Your task to perform on an android device: Open my contact list Image 0: 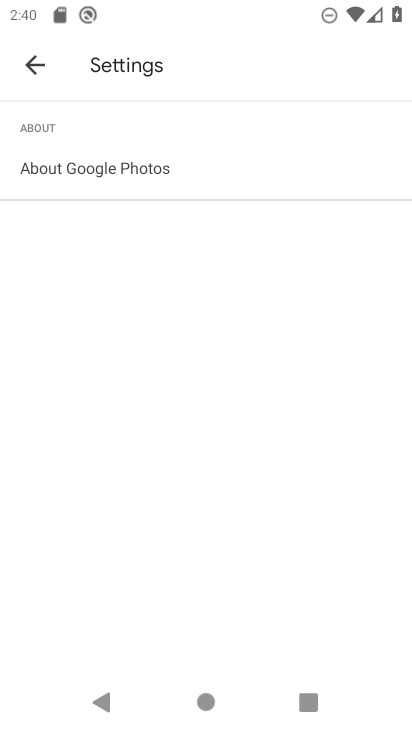
Step 0: click (23, 61)
Your task to perform on an android device: Open my contact list Image 1: 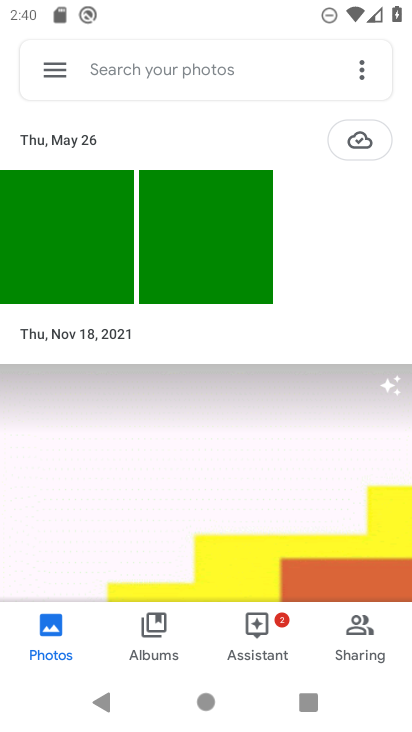
Step 1: press back button
Your task to perform on an android device: Open my contact list Image 2: 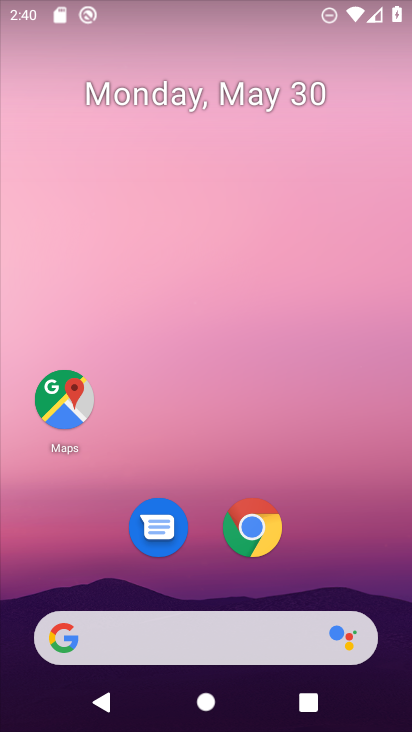
Step 2: drag from (269, 693) to (287, 173)
Your task to perform on an android device: Open my contact list Image 3: 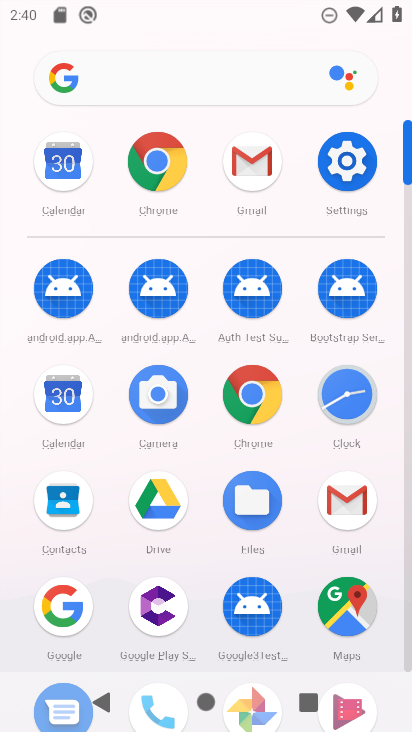
Step 3: click (69, 505)
Your task to perform on an android device: Open my contact list Image 4: 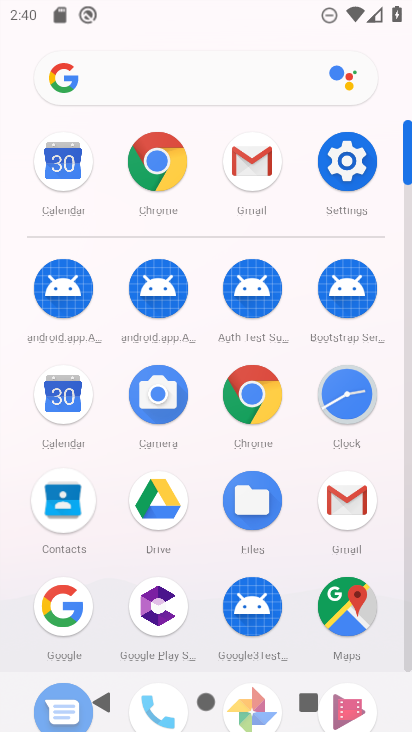
Step 4: click (68, 504)
Your task to perform on an android device: Open my contact list Image 5: 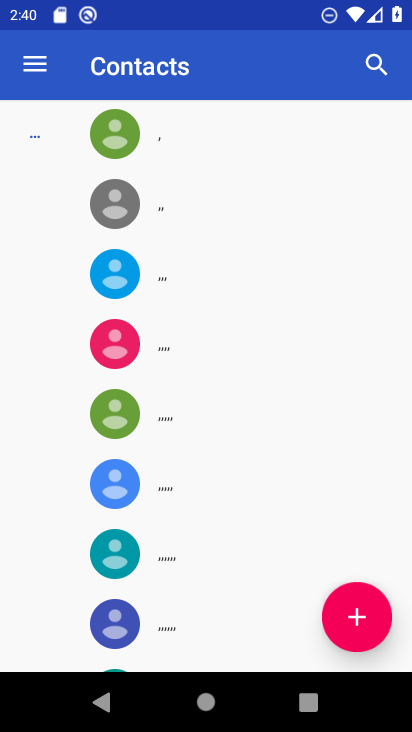
Step 5: click (183, 141)
Your task to perform on an android device: Open my contact list Image 6: 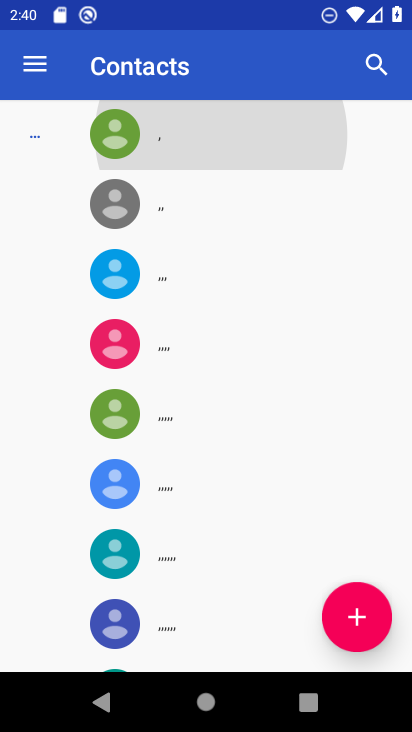
Step 6: task complete